Your task to perform on an android device: check data usage Image 0: 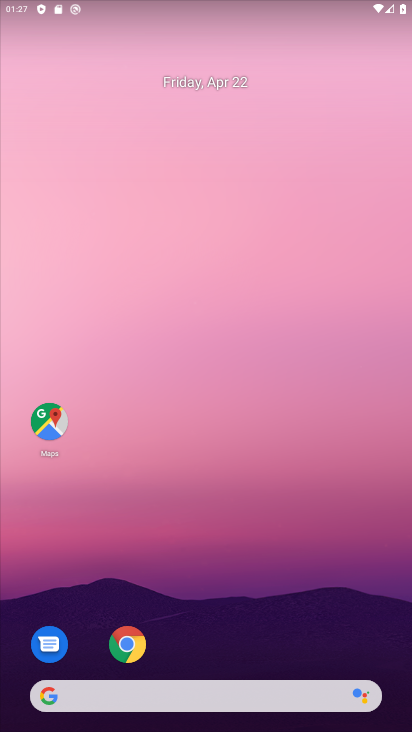
Step 0: drag from (335, 637) to (267, 224)
Your task to perform on an android device: check data usage Image 1: 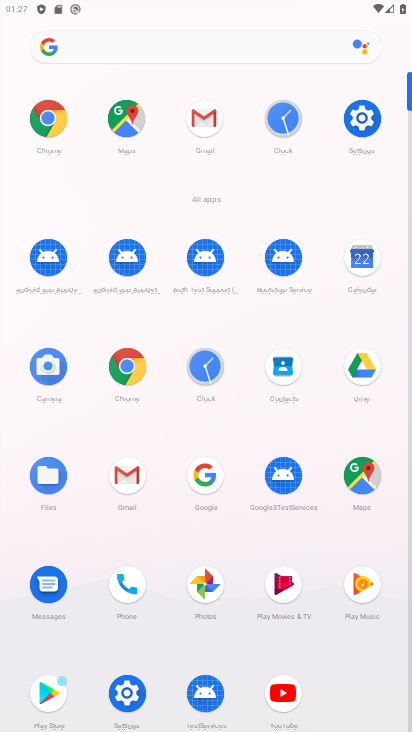
Step 1: click (361, 126)
Your task to perform on an android device: check data usage Image 2: 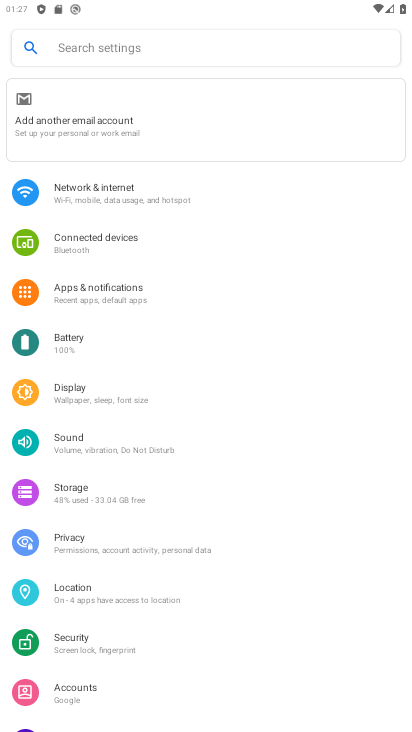
Step 2: click (299, 181)
Your task to perform on an android device: check data usage Image 3: 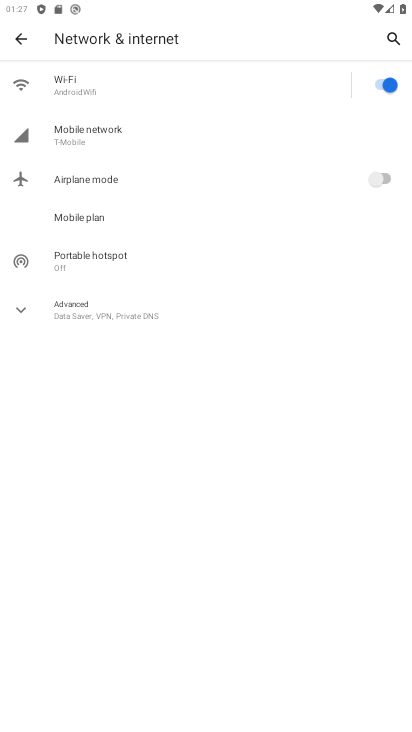
Step 3: click (233, 94)
Your task to perform on an android device: check data usage Image 4: 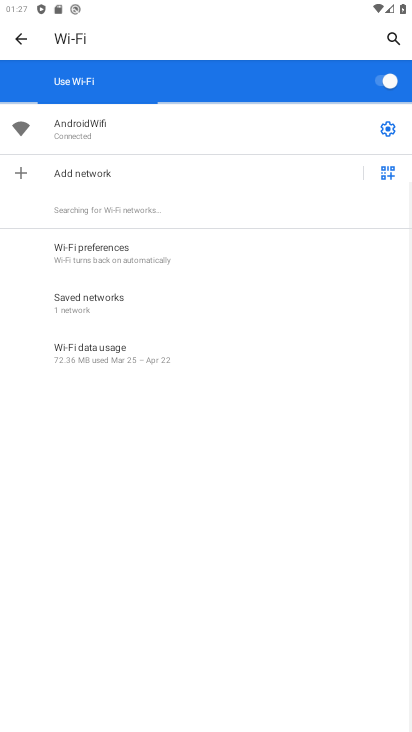
Step 4: click (138, 355)
Your task to perform on an android device: check data usage Image 5: 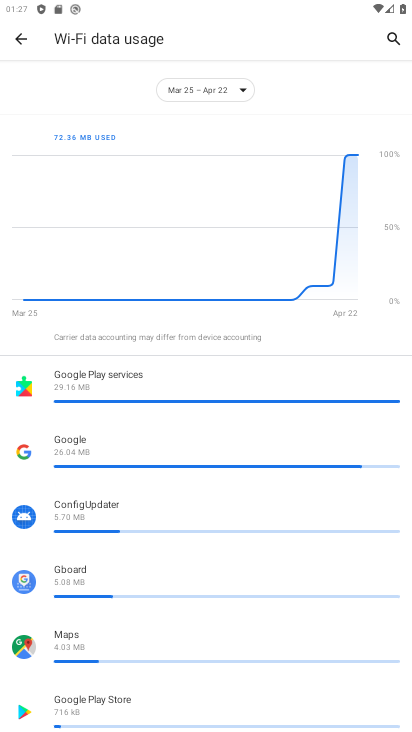
Step 5: task complete